Your task to perform on an android device: open app "YouTube Kids" (install if not already installed) and enter user name: "atmospheric@gmail.com" and password: "raze" Image 0: 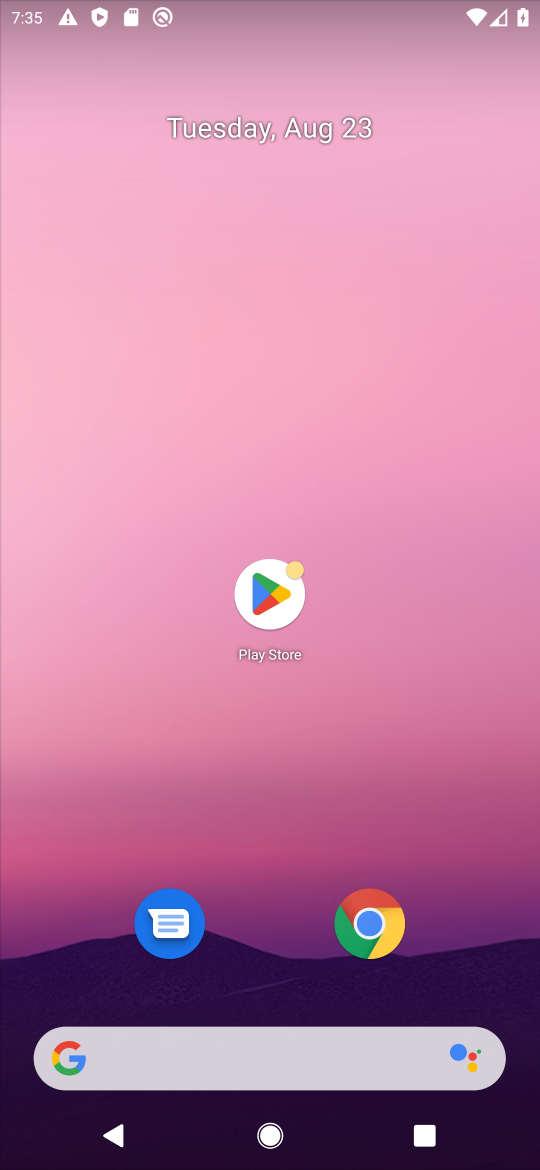
Step 0: click (264, 596)
Your task to perform on an android device: open app "YouTube Kids" (install if not already installed) and enter user name: "atmospheric@gmail.com" and password: "raze" Image 1: 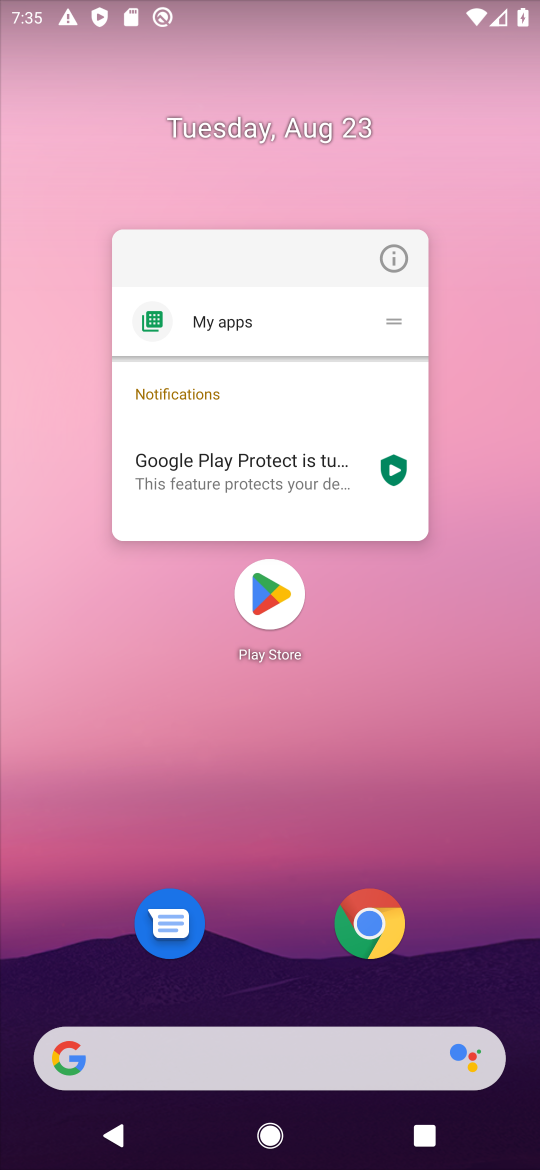
Step 1: click (272, 595)
Your task to perform on an android device: open app "YouTube Kids" (install if not already installed) and enter user name: "atmospheric@gmail.com" and password: "raze" Image 2: 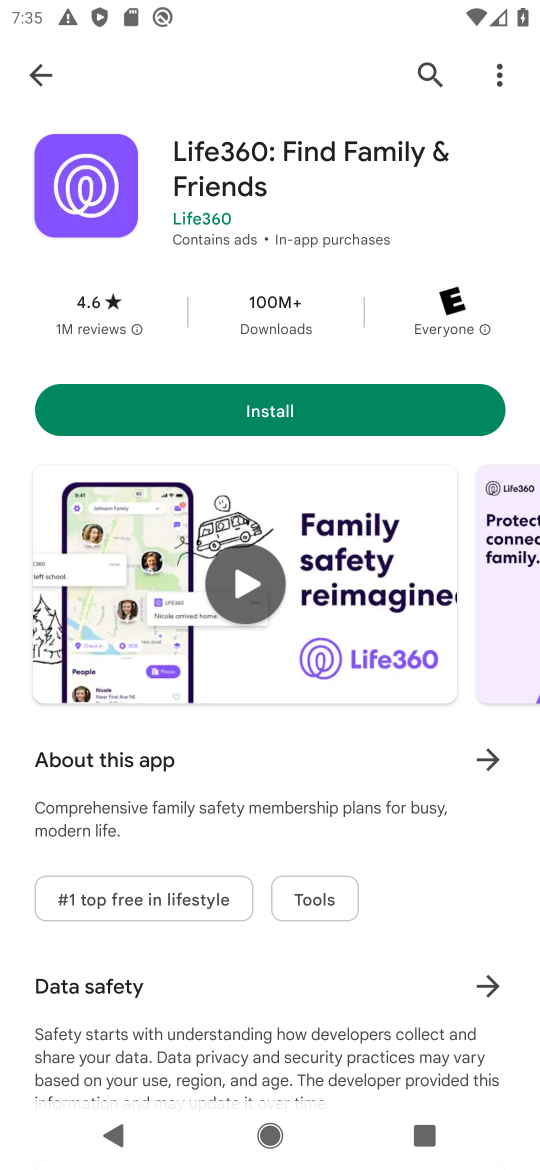
Step 2: click (425, 61)
Your task to perform on an android device: open app "YouTube Kids" (install if not already installed) and enter user name: "atmospheric@gmail.com" and password: "raze" Image 3: 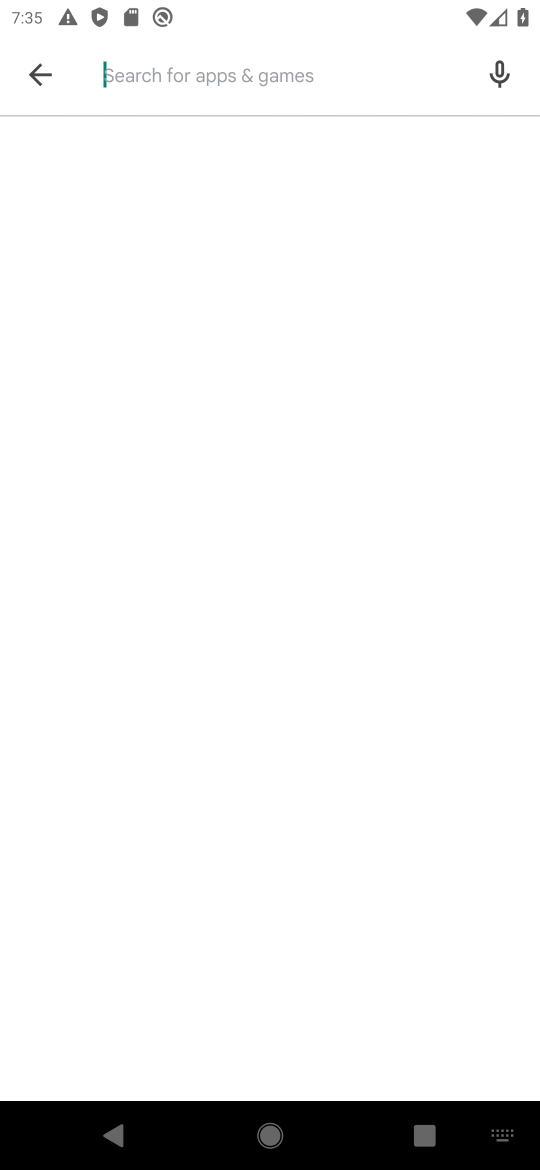
Step 3: type "YouTube Kids"
Your task to perform on an android device: open app "YouTube Kids" (install if not already installed) and enter user name: "atmospheric@gmail.com" and password: "raze" Image 4: 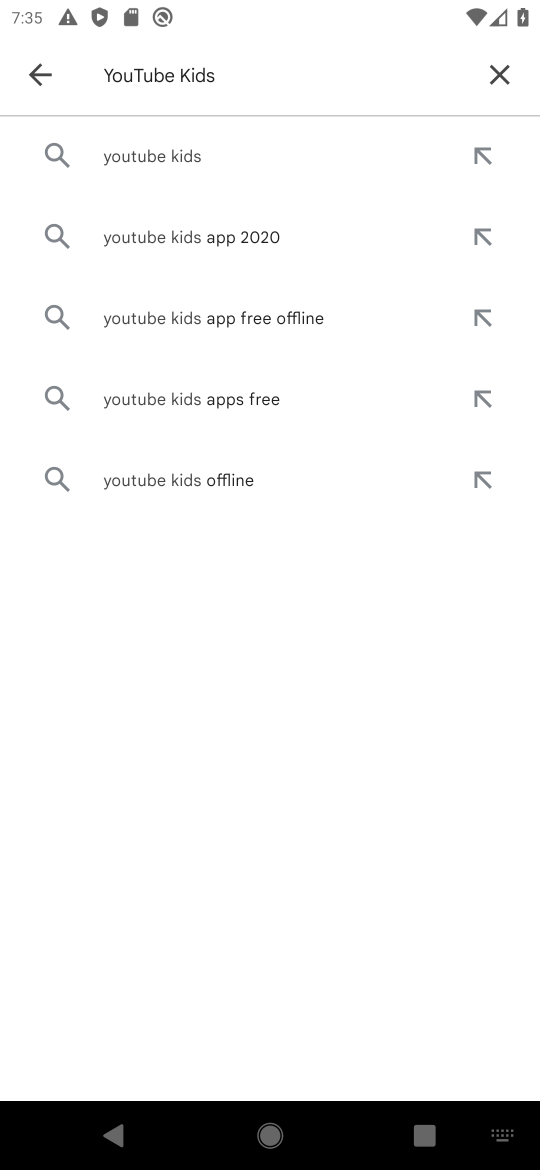
Step 4: click (133, 160)
Your task to perform on an android device: open app "YouTube Kids" (install if not already installed) and enter user name: "atmospheric@gmail.com" and password: "raze" Image 5: 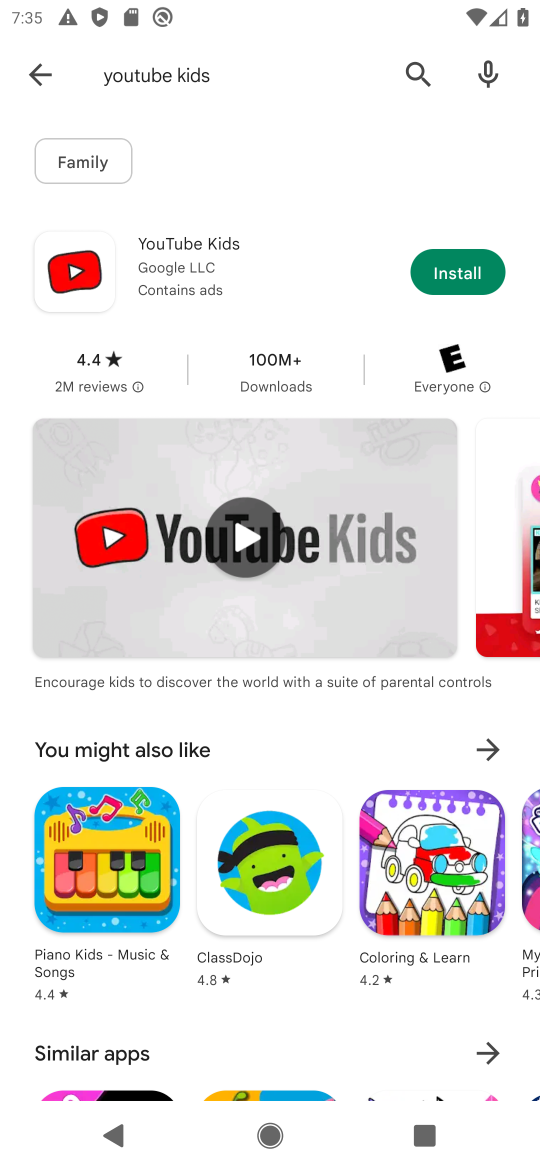
Step 5: click (474, 272)
Your task to perform on an android device: open app "YouTube Kids" (install if not already installed) and enter user name: "atmospheric@gmail.com" and password: "raze" Image 6: 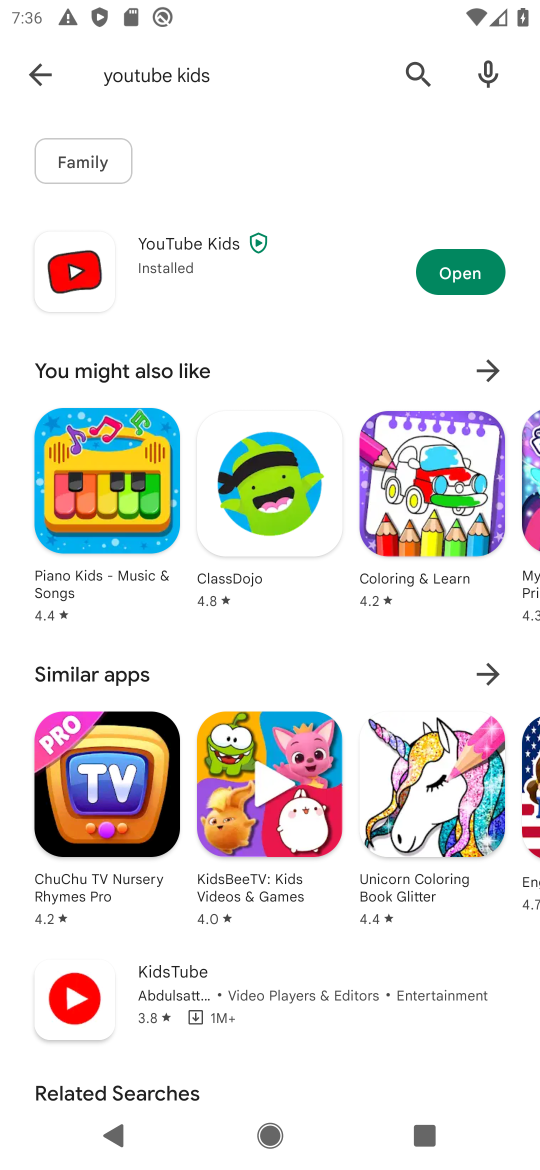
Step 6: click (463, 281)
Your task to perform on an android device: open app "YouTube Kids" (install if not already installed) and enter user name: "atmospheric@gmail.com" and password: "raze" Image 7: 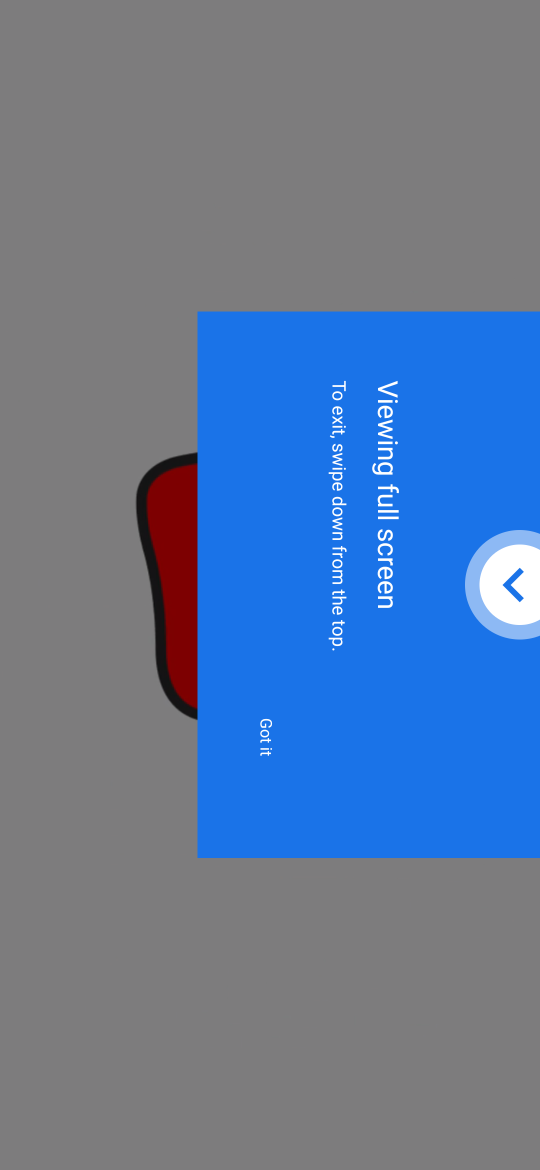
Step 7: click (260, 742)
Your task to perform on an android device: open app "YouTube Kids" (install if not already installed) and enter user name: "atmospheric@gmail.com" and password: "raze" Image 8: 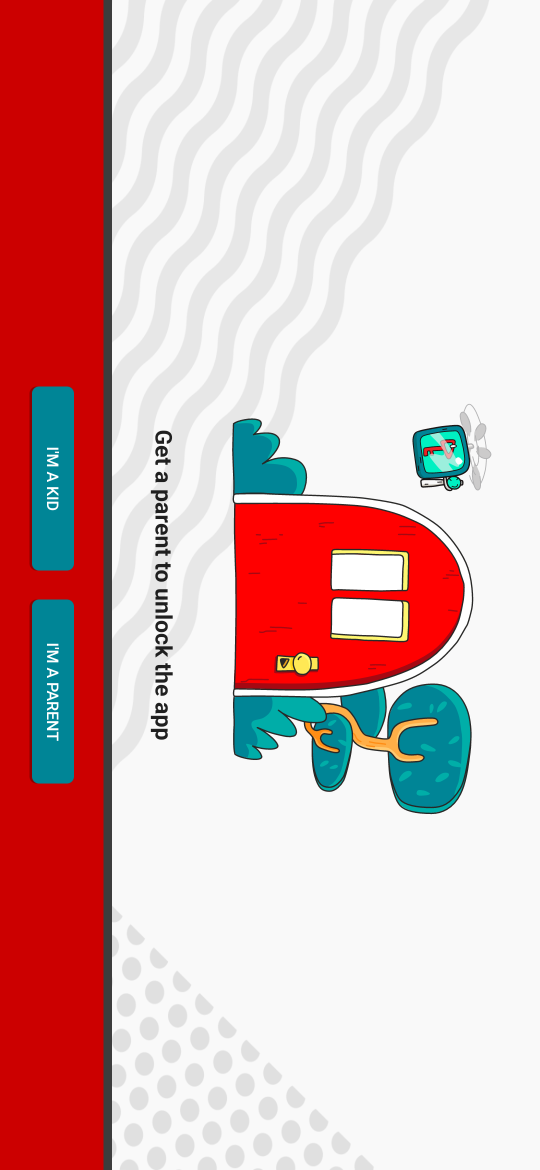
Step 8: task complete